Your task to perform on an android device: Is it going to rain this weekend? Image 0: 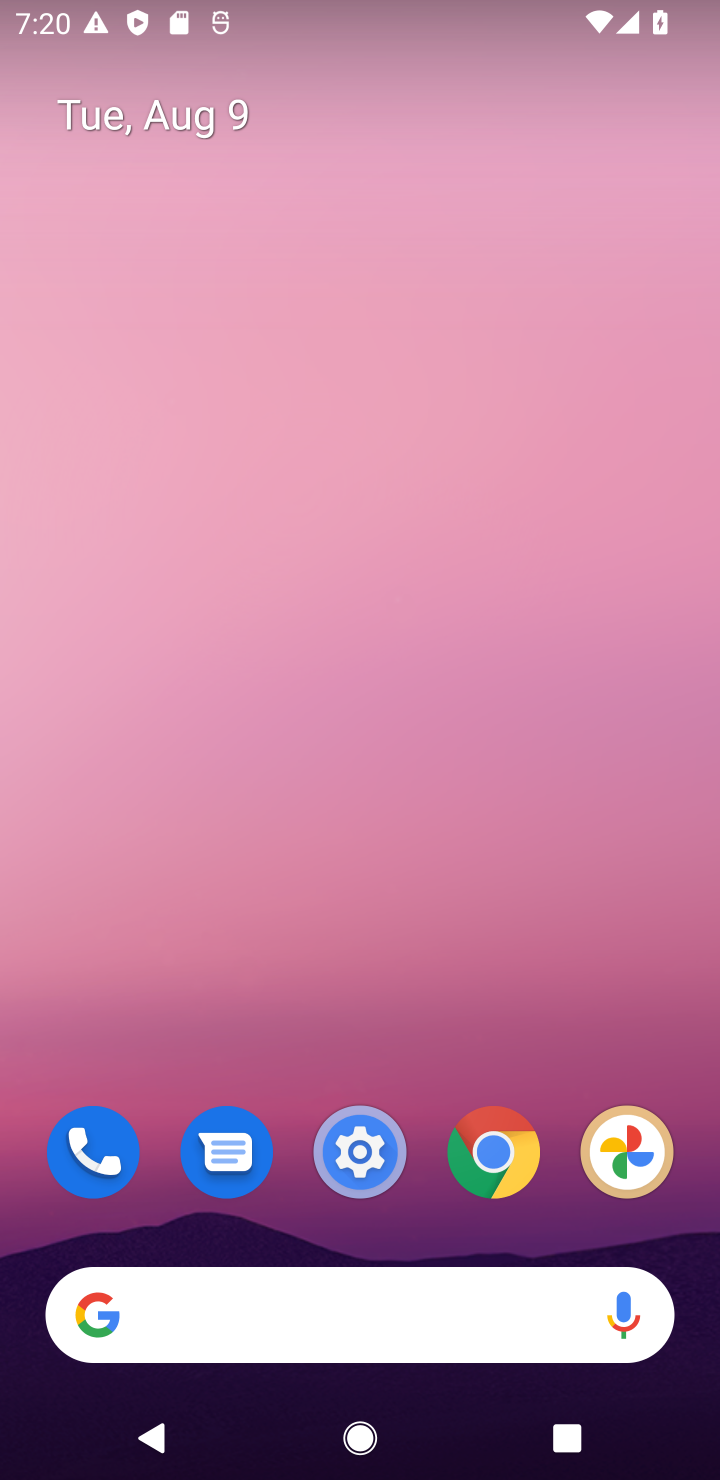
Step 0: click (376, 1307)
Your task to perform on an android device: Is it going to rain this weekend? Image 1: 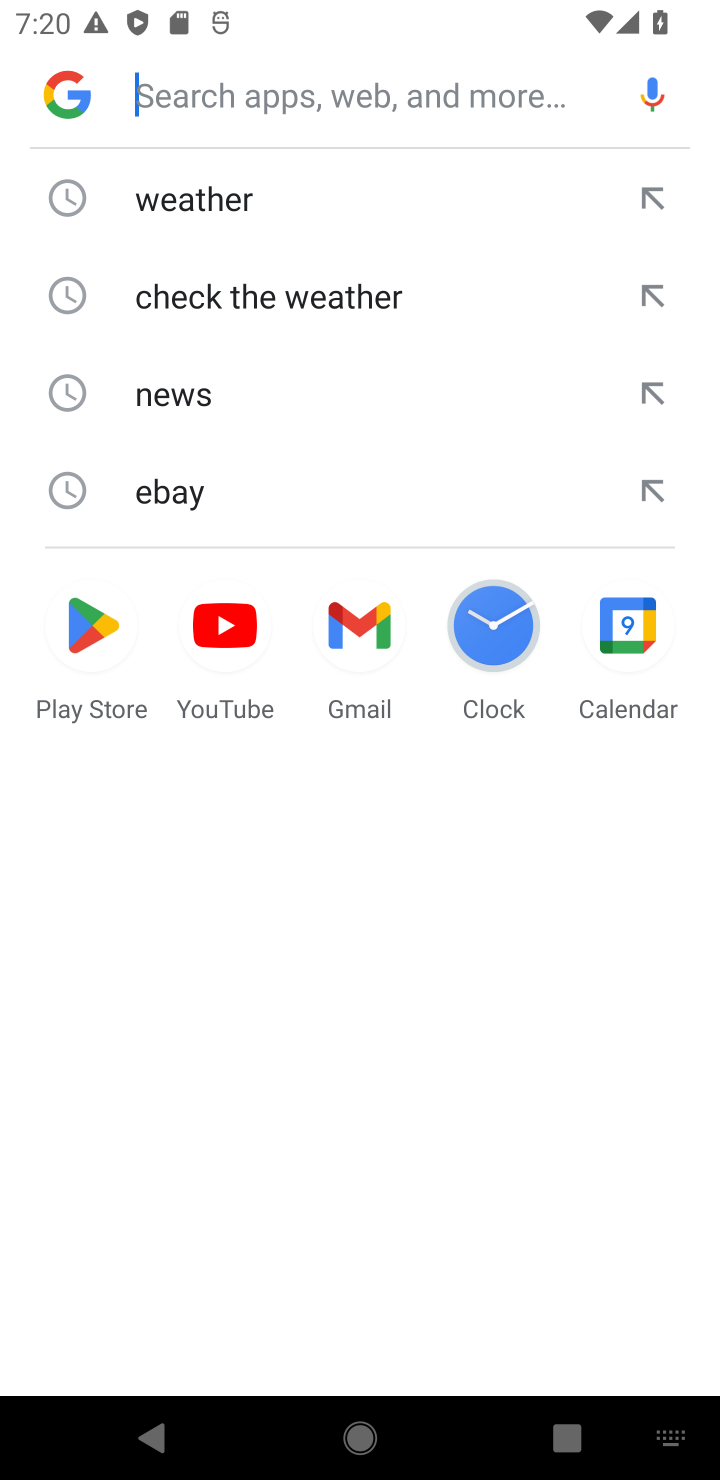
Step 1: click (303, 204)
Your task to perform on an android device: Is it going to rain this weekend? Image 2: 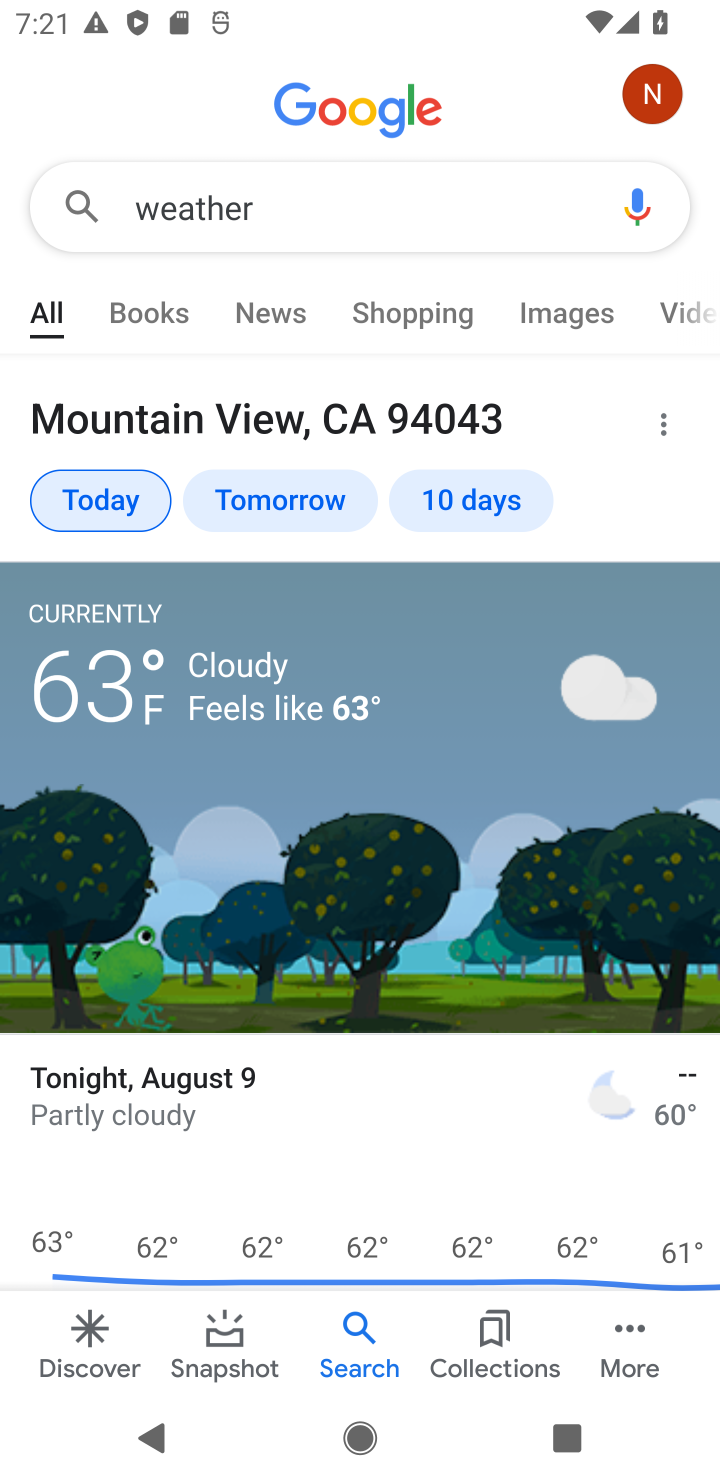
Step 2: task complete